Your task to perform on an android device: turn on javascript in the chrome app Image 0: 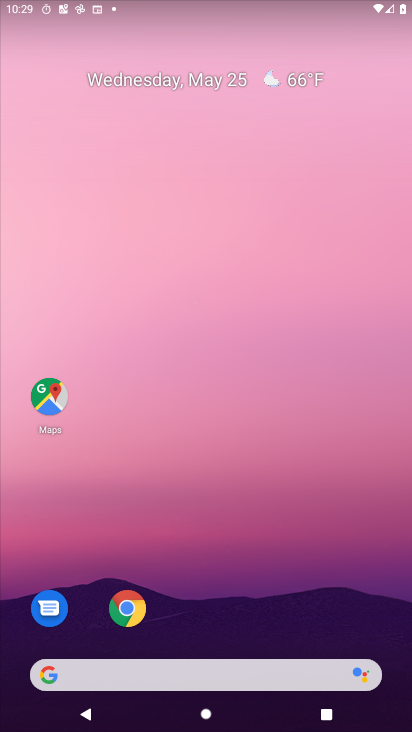
Step 0: click (128, 608)
Your task to perform on an android device: turn on javascript in the chrome app Image 1: 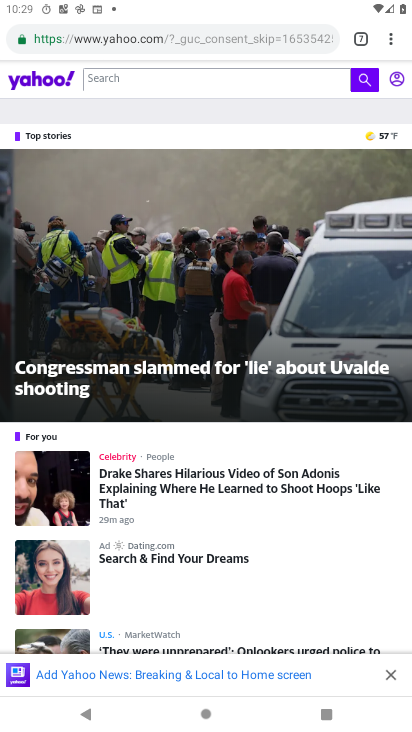
Step 1: click (392, 43)
Your task to perform on an android device: turn on javascript in the chrome app Image 2: 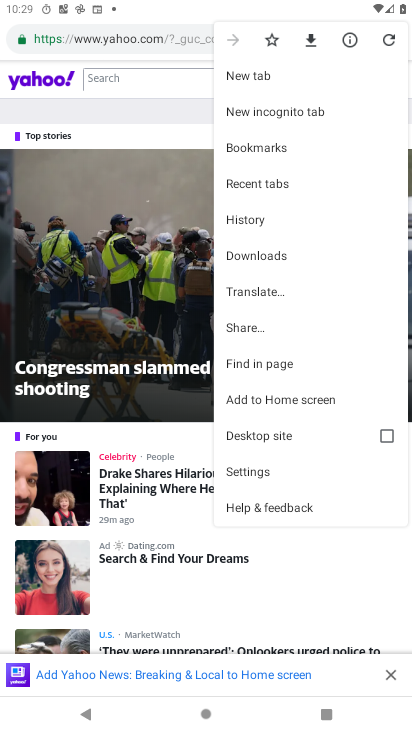
Step 2: click (258, 469)
Your task to perform on an android device: turn on javascript in the chrome app Image 3: 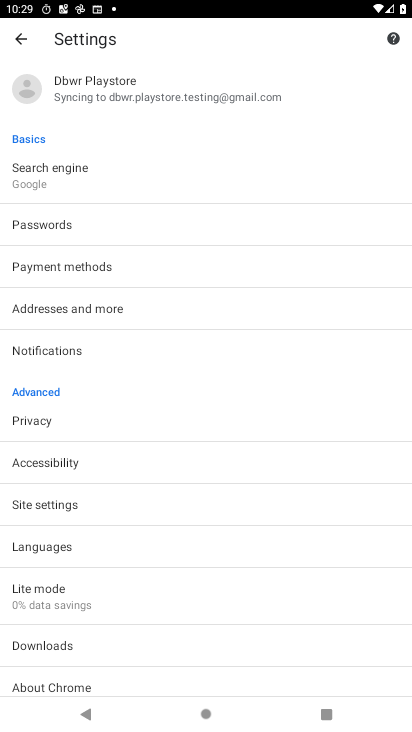
Step 3: click (31, 502)
Your task to perform on an android device: turn on javascript in the chrome app Image 4: 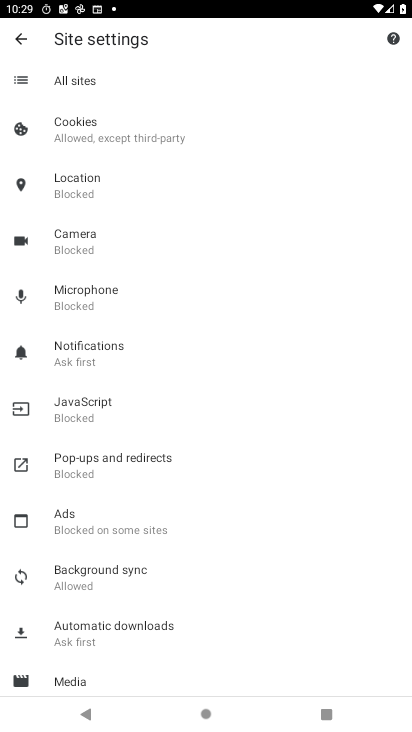
Step 4: click (81, 403)
Your task to perform on an android device: turn on javascript in the chrome app Image 5: 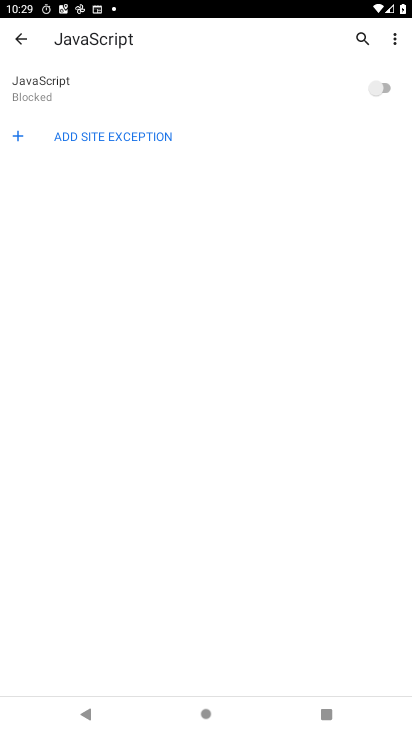
Step 5: click (385, 90)
Your task to perform on an android device: turn on javascript in the chrome app Image 6: 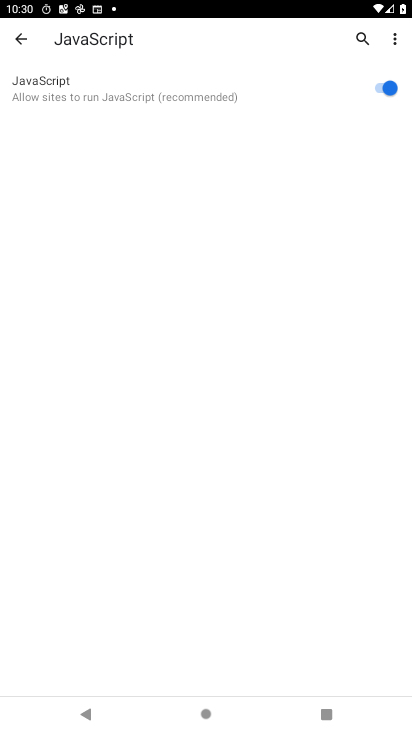
Step 6: task complete